Your task to perform on an android device: add a contact Image 0: 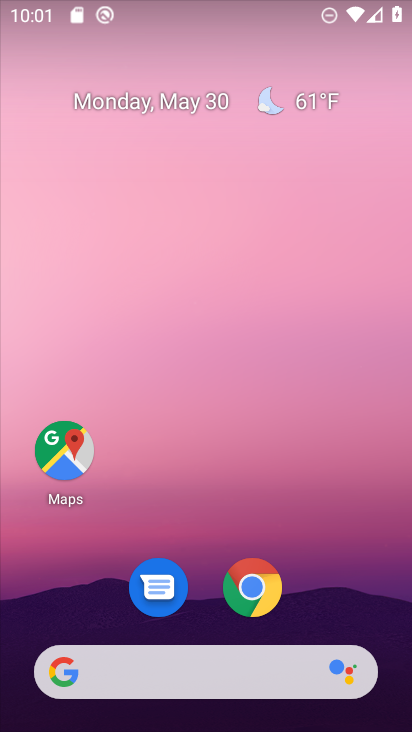
Step 0: drag from (223, 646) to (181, 28)
Your task to perform on an android device: add a contact Image 1: 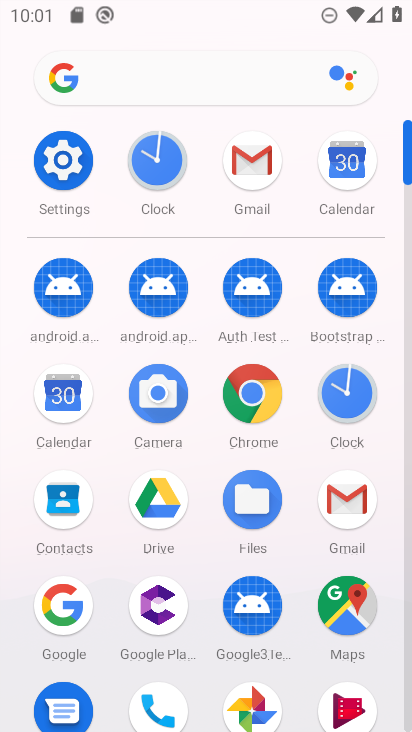
Step 1: click (180, 698)
Your task to perform on an android device: add a contact Image 2: 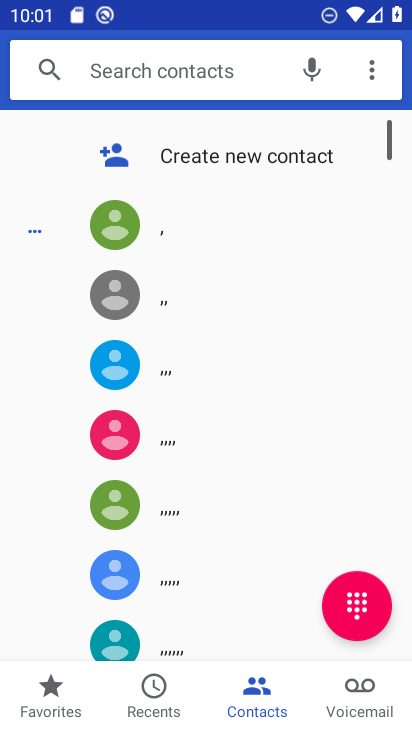
Step 2: click (215, 163)
Your task to perform on an android device: add a contact Image 3: 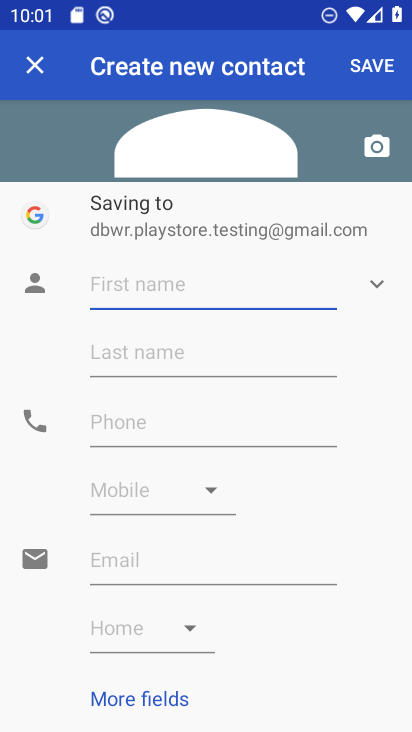
Step 3: type "ddds"
Your task to perform on an android device: add a contact Image 4: 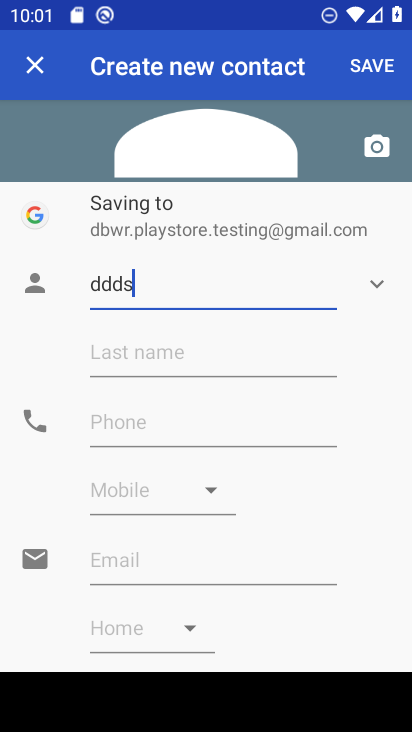
Step 4: type ""
Your task to perform on an android device: add a contact Image 5: 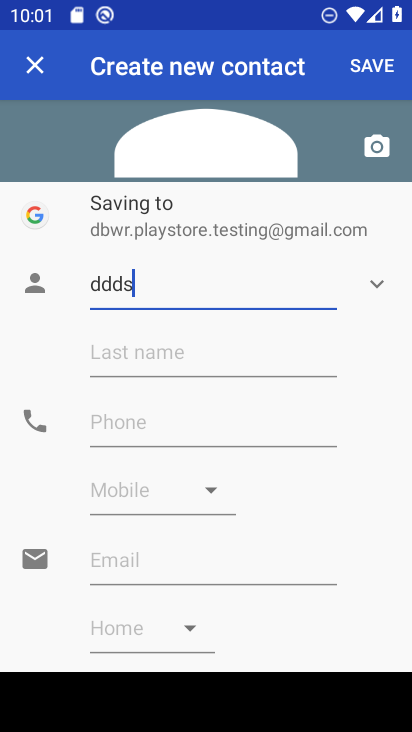
Step 5: click (206, 425)
Your task to perform on an android device: add a contact Image 6: 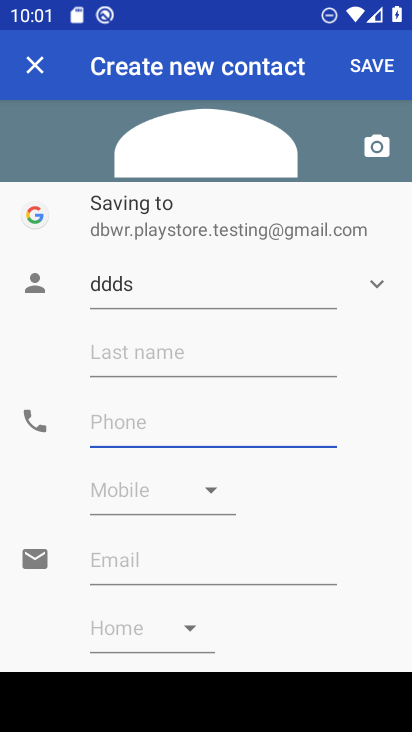
Step 6: type "323"
Your task to perform on an android device: add a contact Image 7: 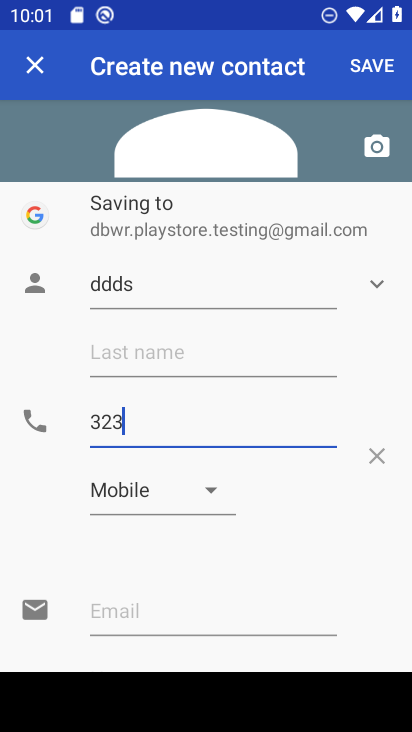
Step 7: type ""
Your task to perform on an android device: add a contact Image 8: 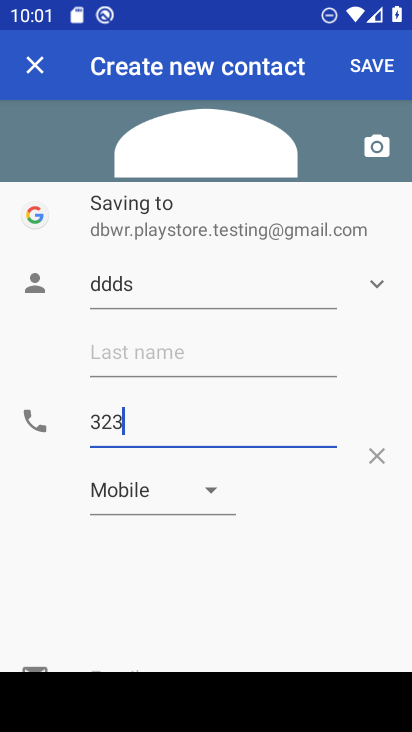
Step 8: click (357, 69)
Your task to perform on an android device: add a contact Image 9: 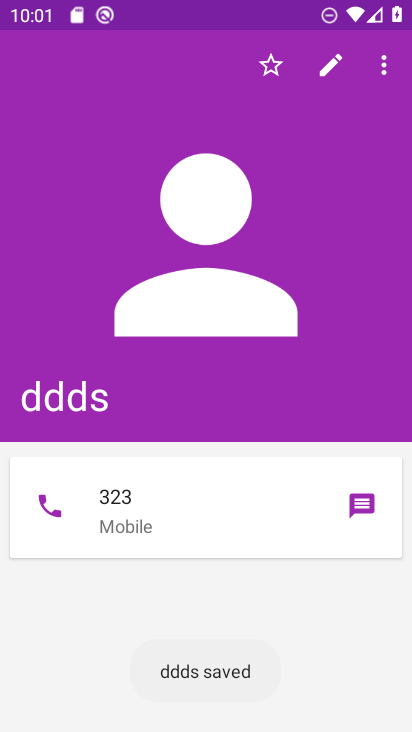
Step 9: task complete